Your task to perform on an android device: Go to Android settings Image 0: 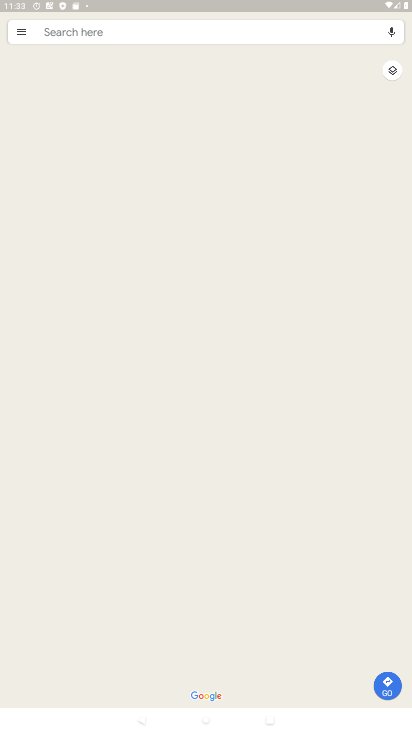
Step 0: drag from (187, 585) to (176, 101)
Your task to perform on an android device: Go to Android settings Image 1: 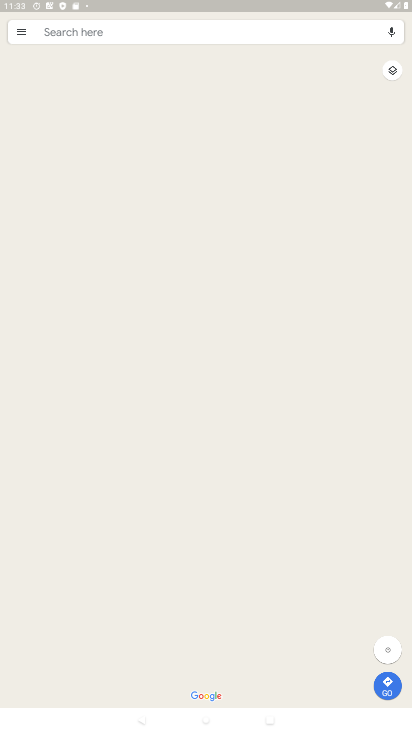
Step 1: drag from (231, 472) to (213, 188)
Your task to perform on an android device: Go to Android settings Image 2: 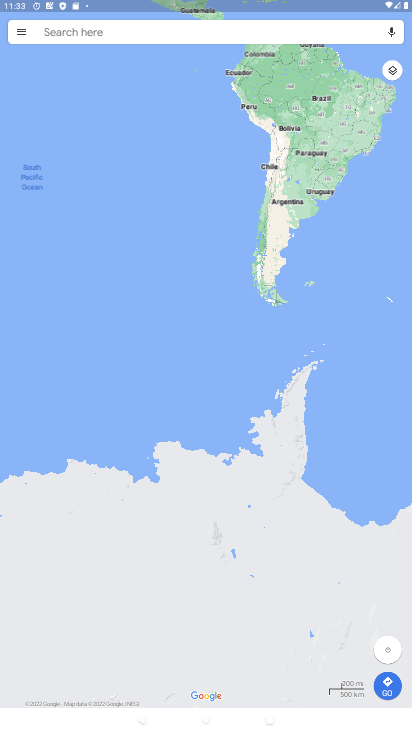
Step 2: press back button
Your task to perform on an android device: Go to Android settings Image 3: 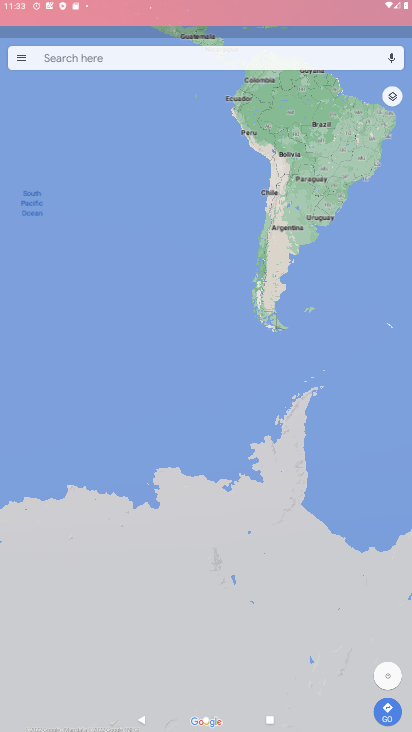
Step 3: drag from (267, 495) to (236, 175)
Your task to perform on an android device: Go to Android settings Image 4: 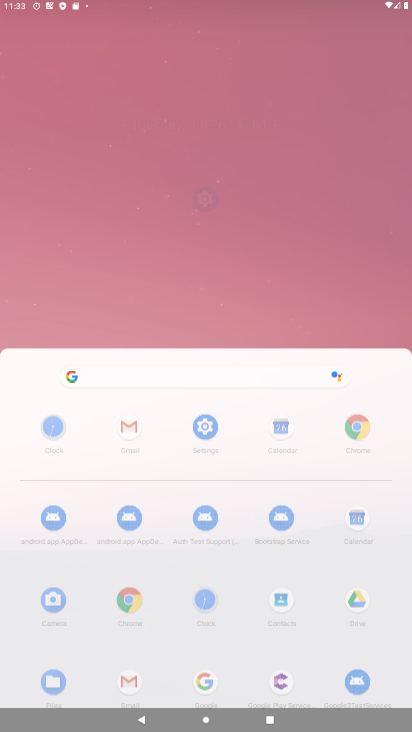
Step 4: drag from (262, 562) to (258, 50)
Your task to perform on an android device: Go to Android settings Image 5: 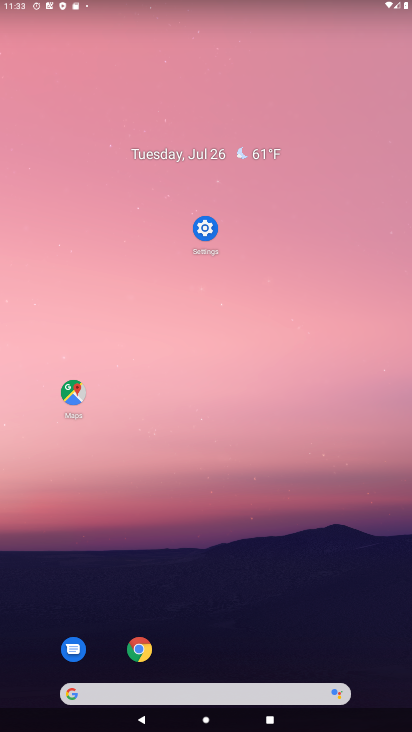
Step 5: drag from (284, 613) to (306, 32)
Your task to perform on an android device: Go to Android settings Image 6: 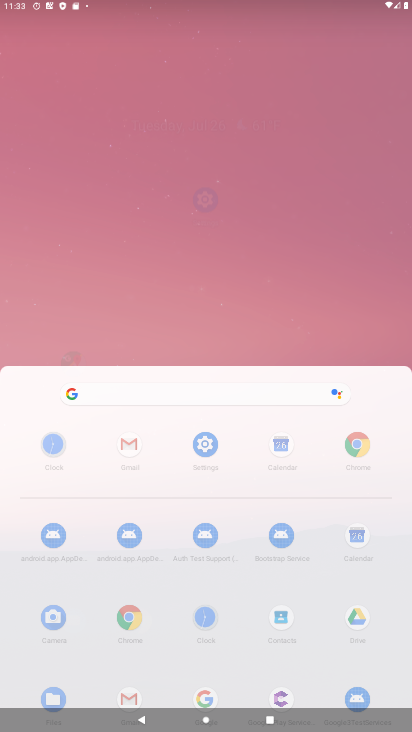
Step 6: drag from (350, 559) to (335, 57)
Your task to perform on an android device: Go to Android settings Image 7: 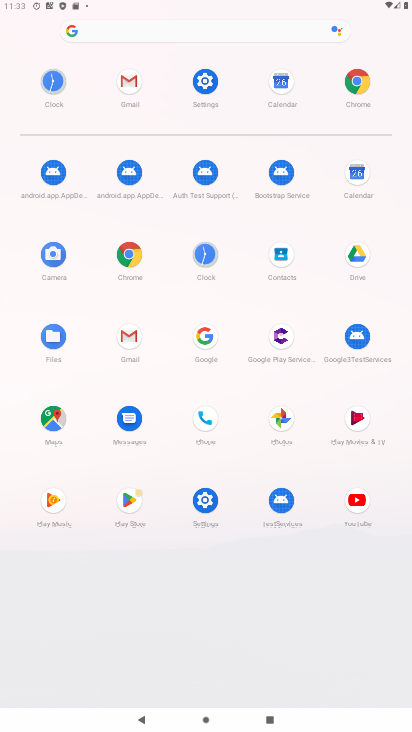
Step 7: drag from (327, 258) to (318, 15)
Your task to perform on an android device: Go to Android settings Image 8: 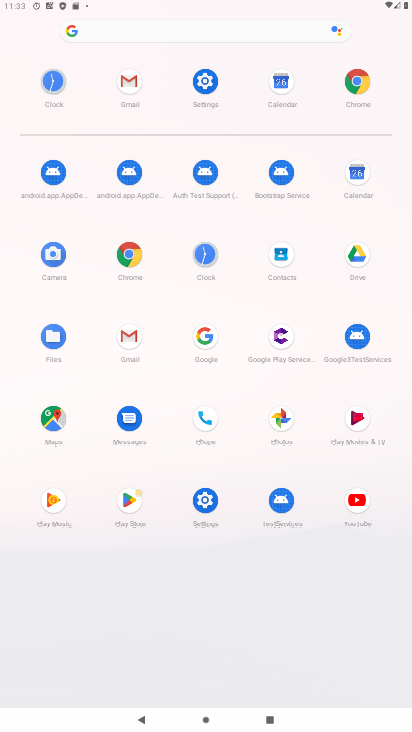
Step 8: click (208, 499)
Your task to perform on an android device: Go to Android settings Image 9: 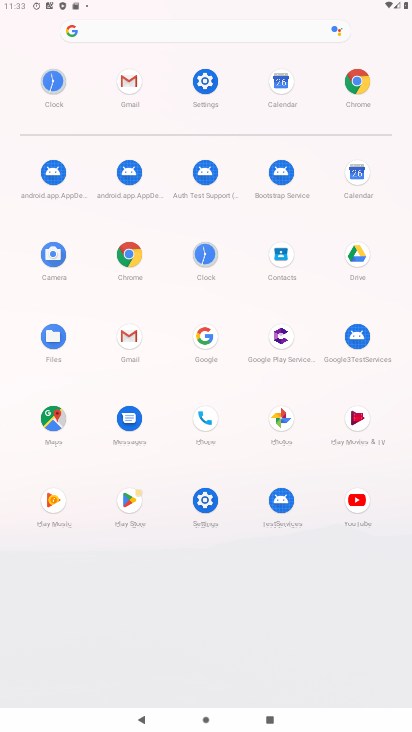
Step 9: click (208, 499)
Your task to perform on an android device: Go to Android settings Image 10: 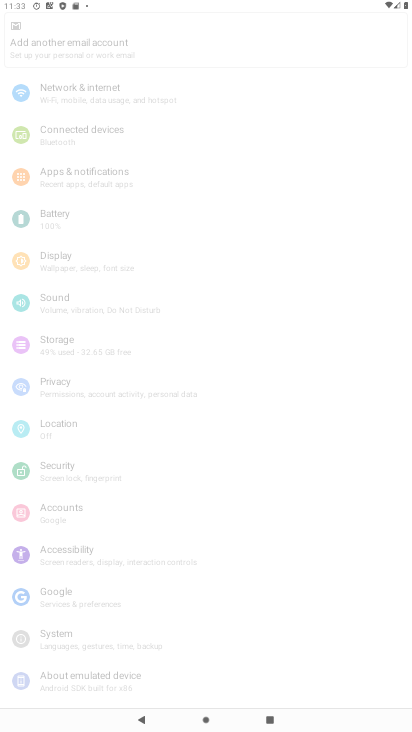
Step 10: click (208, 499)
Your task to perform on an android device: Go to Android settings Image 11: 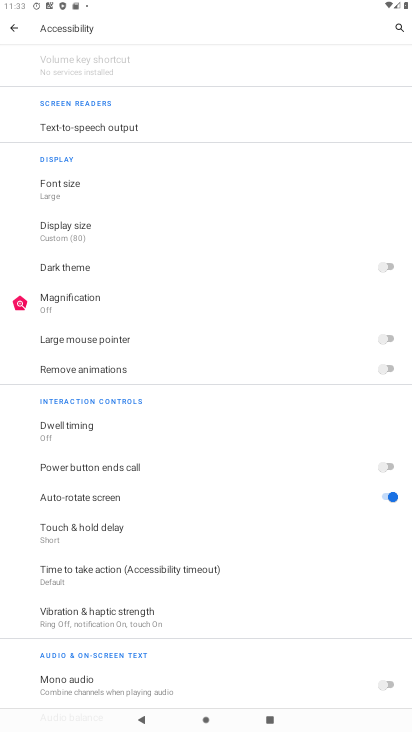
Step 11: drag from (256, 414) to (249, 228)
Your task to perform on an android device: Go to Android settings Image 12: 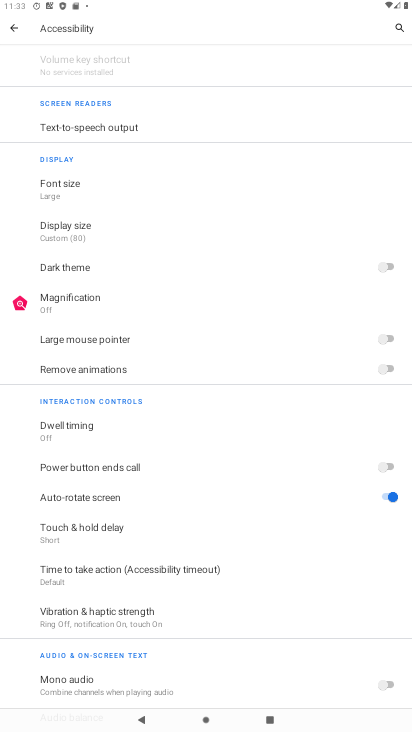
Step 12: click (9, 28)
Your task to perform on an android device: Go to Android settings Image 13: 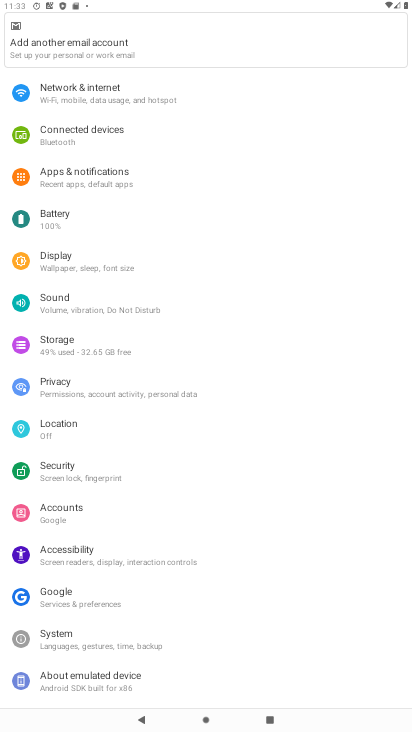
Step 13: drag from (132, 620) to (125, 260)
Your task to perform on an android device: Go to Android settings Image 14: 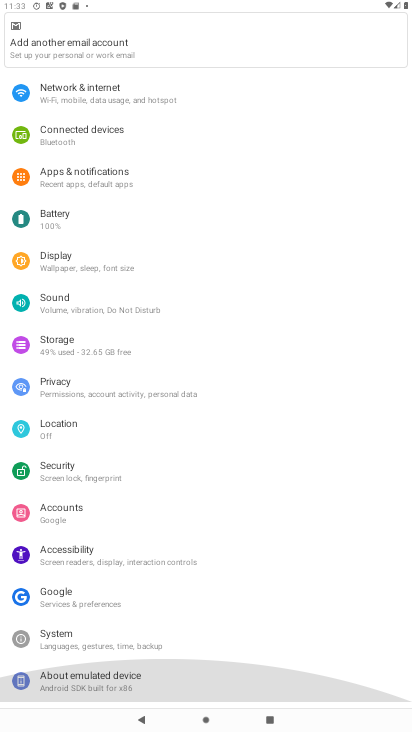
Step 14: drag from (137, 461) to (132, 232)
Your task to perform on an android device: Go to Android settings Image 15: 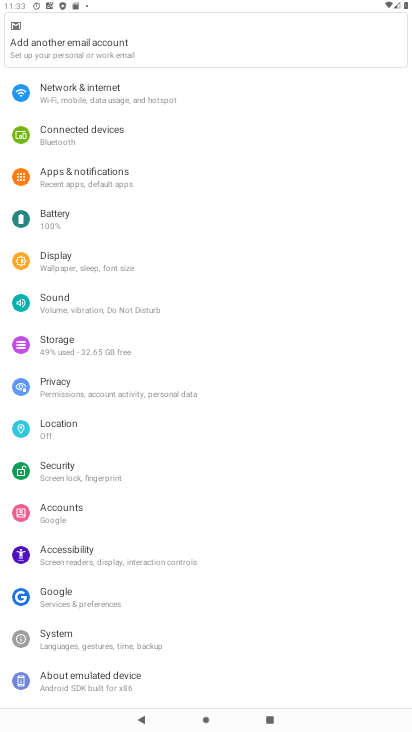
Step 15: click (77, 674)
Your task to perform on an android device: Go to Android settings Image 16: 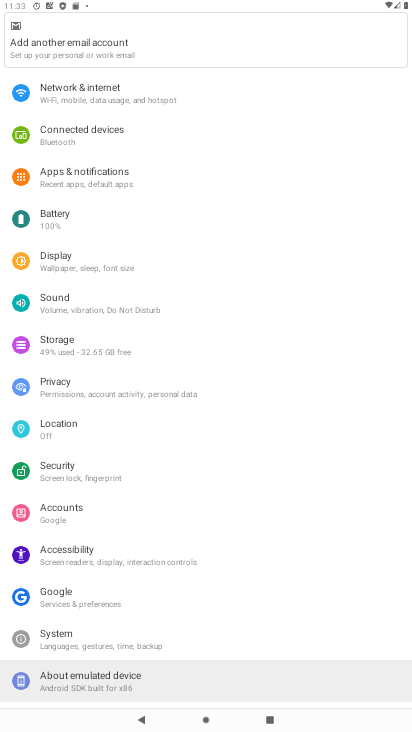
Step 16: click (79, 673)
Your task to perform on an android device: Go to Android settings Image 17: 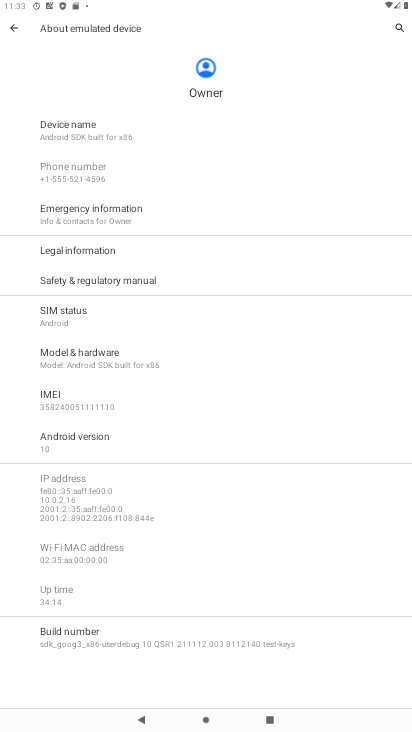
Step 17: task complete